Your task to perform on an android device: When is my next meeting? Image 0: 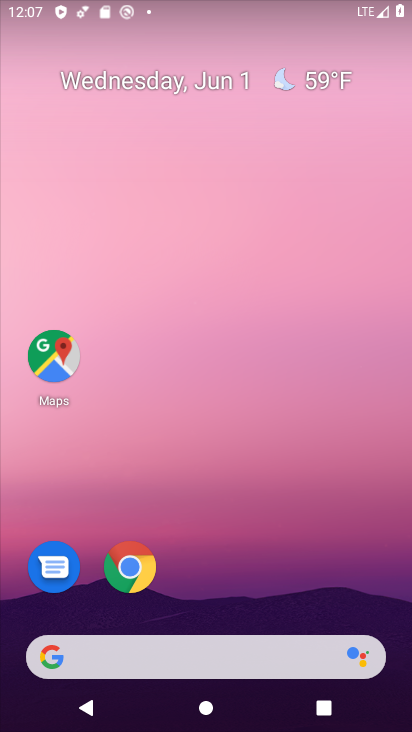
Step 0: drag from (249, 602) to (257, 151)
Your task to perform on an android device: When is my next meeting? Image 1: 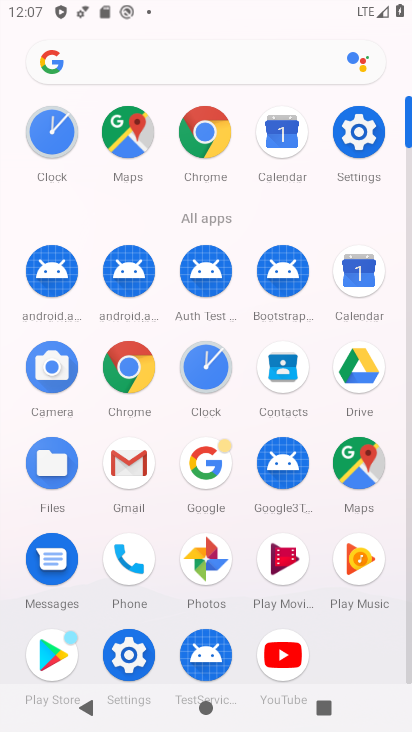
Step 1: click (349, 273)
Your task to perform on an android device: When is my next meeting? Image 2: 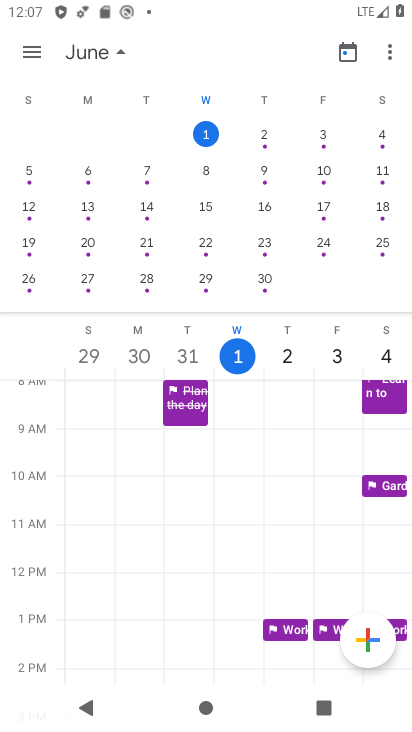
Step 2: click (33, 51)
Your task to perform on an android device: When is my next meeting? Image 3: 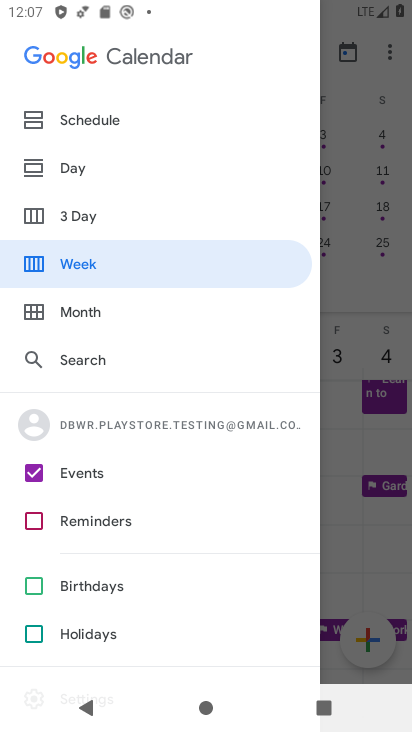
Step 3: click (93, 108)
Your task to perform on an android device: When is my next meeting? Image 4: 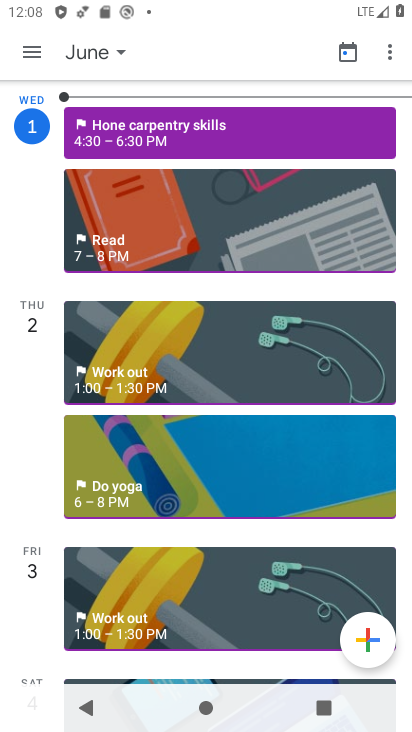
Step 4: task complete